Your task to perform on an android device: turn on airplane mode Image 0: 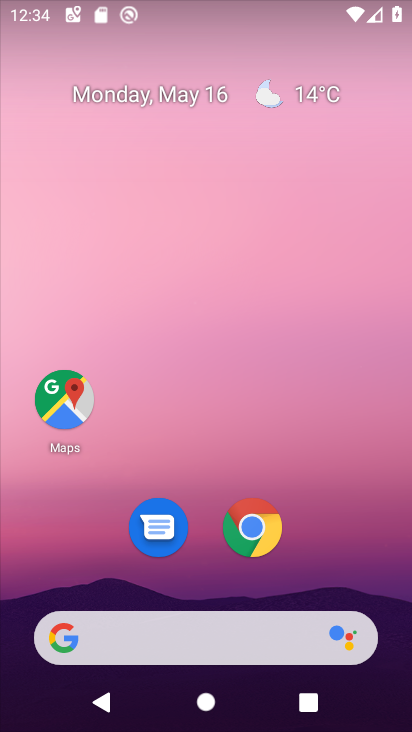
Step 0: drag from (203, 577) to (252, 118)
Your task to perform on an android device: turn on airplane mode Image 1: 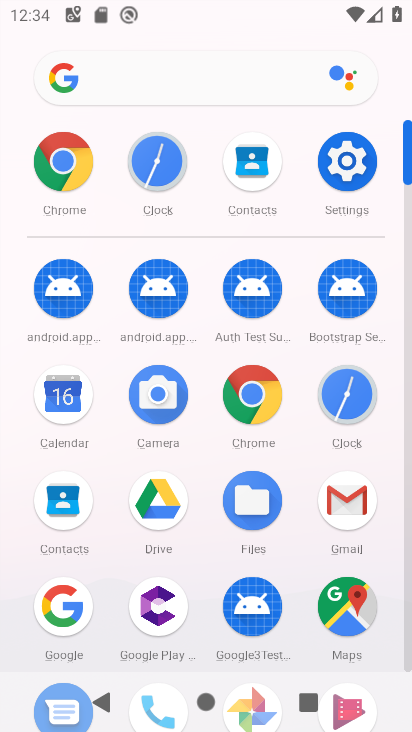
Step 1: click (347, 147)
Your task to perform on an android device: turn on airplane mode Image 2: 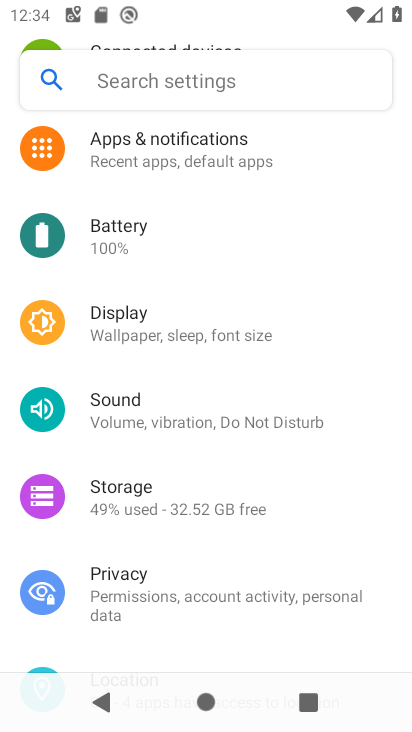
Step 2: drag from (192, 222) to (205, 663)
Your task to perform on an android device: turn on airplane mode Image 3: 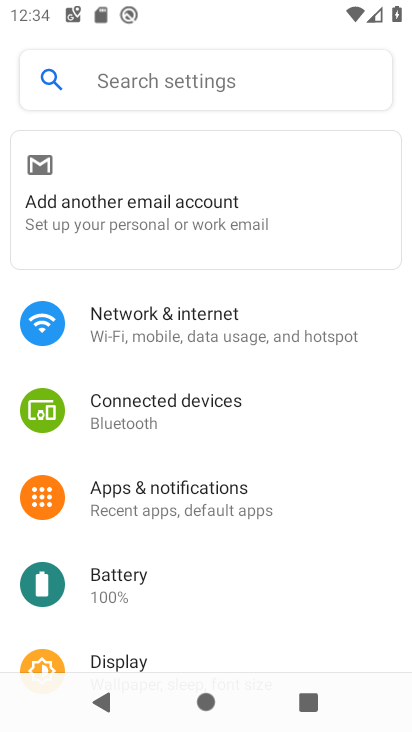
Step 3: click (177, 343)
Your task to perform on an android device: turn on airplane mode Image 4: 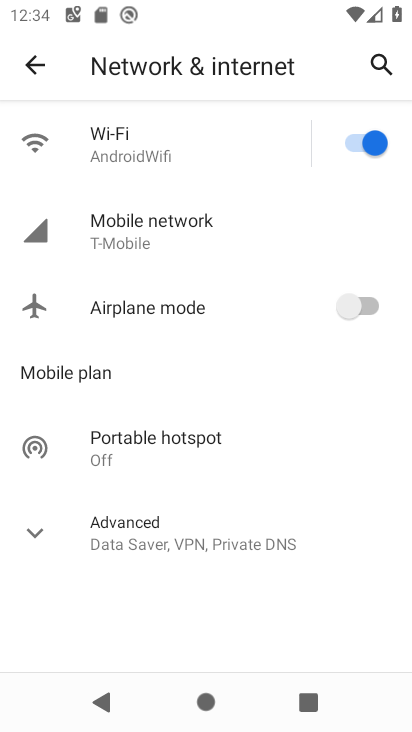
Step 4: click (377, 298)
Your task to perform on an android device: turn on airplane mode Image 5: 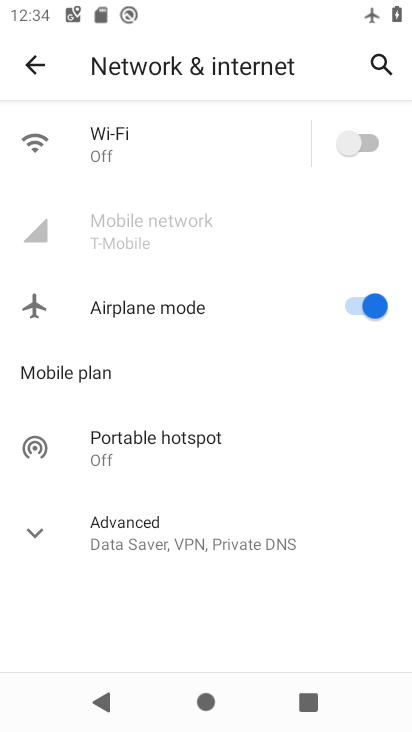
Step 5: task complete